Your task to perform on an android device: turn off wifi Image 0: 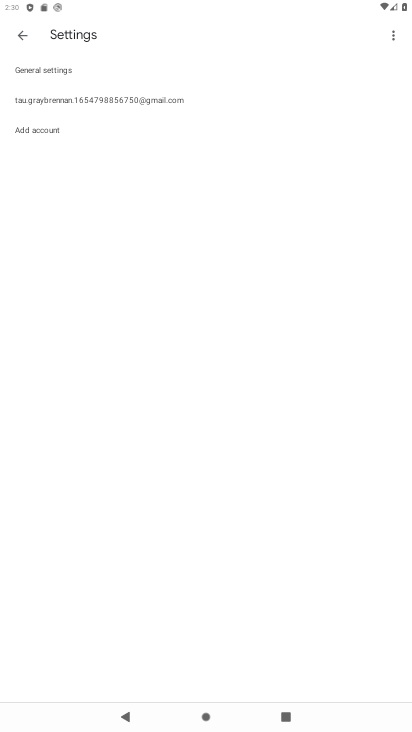
Step 0: drag from (214, 10) to (128, 657)
Your task to perform on an android device: turn off wifi Image 1: 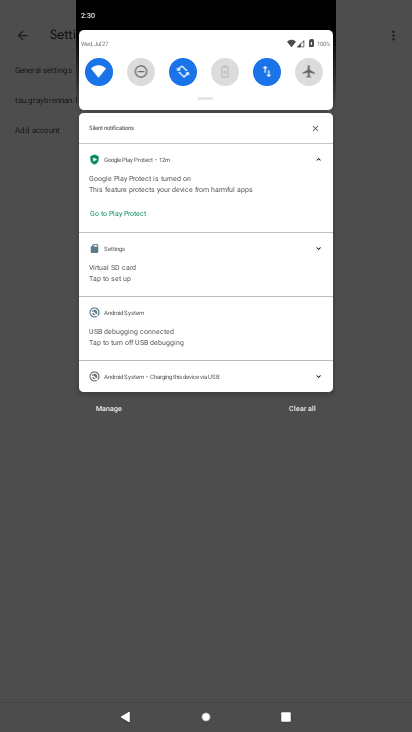
Step 1: click (103, 73)
Your task to perform on an android device: turn off wifi Image 2: 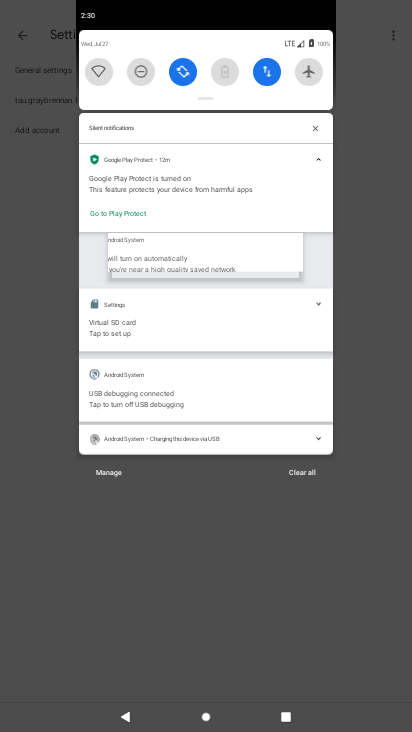
Step 2: task complete